Your task to perform on an android device: Go to Reddit.com Image 0: 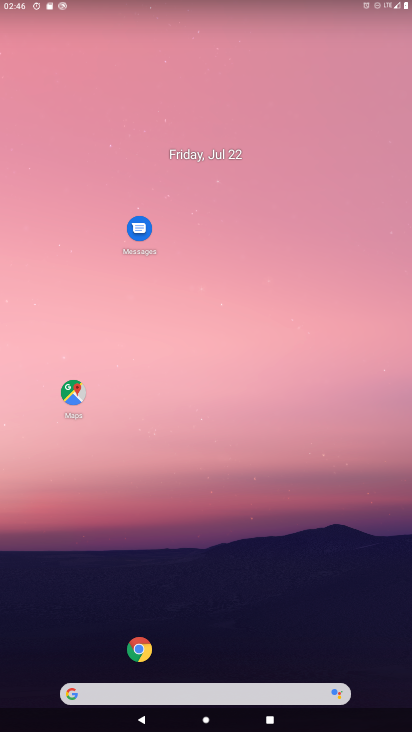
Step 0: click (84, 697)
Your task to perform on an android device: Go to Reddit.com Image 1: 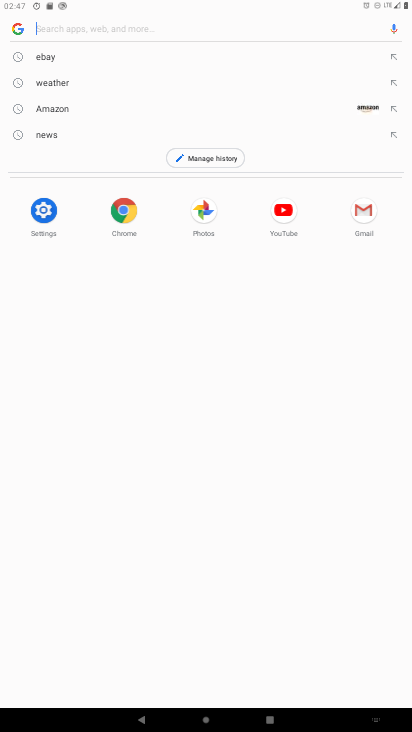
Step 1: type "Reddit.com"
Your task to perform on an android device: Go to Reddit.com Image 2: 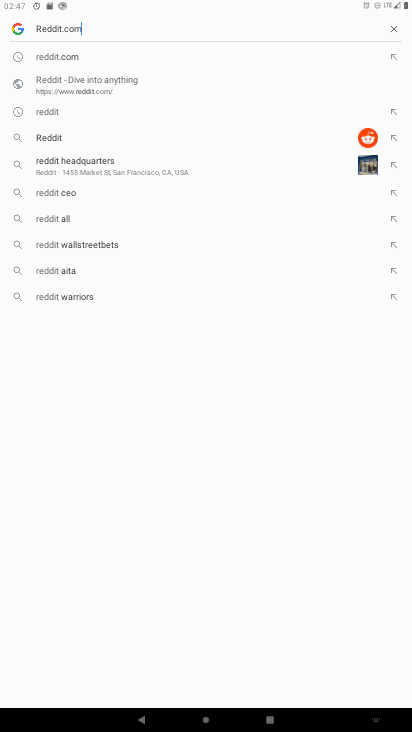
Step 2: type ""
Your task to perform on an android device: Go to Reddit.com Image 3: 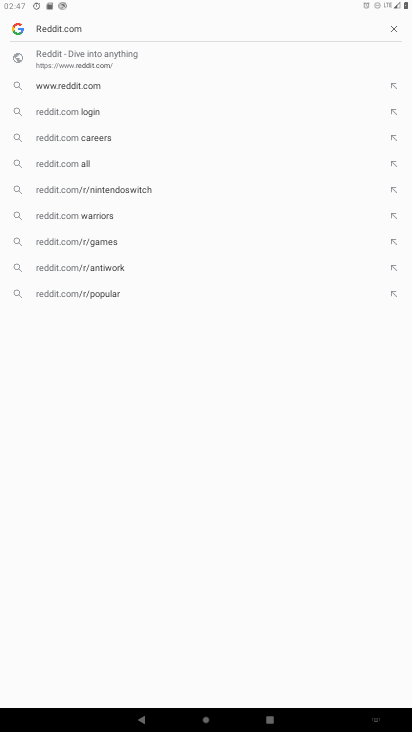
Step 3: type ""
Your task to perform on an android device: Go to Reddit.com Image 4: 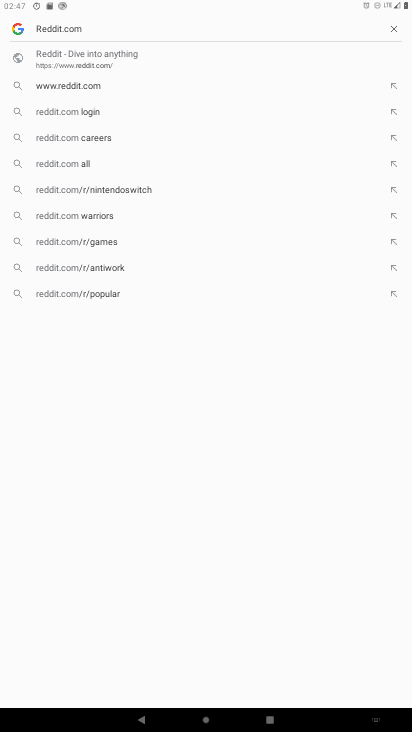
Step 4: task complete